Your task to perform on an android device: Open Chrome and go to settings Image 0: 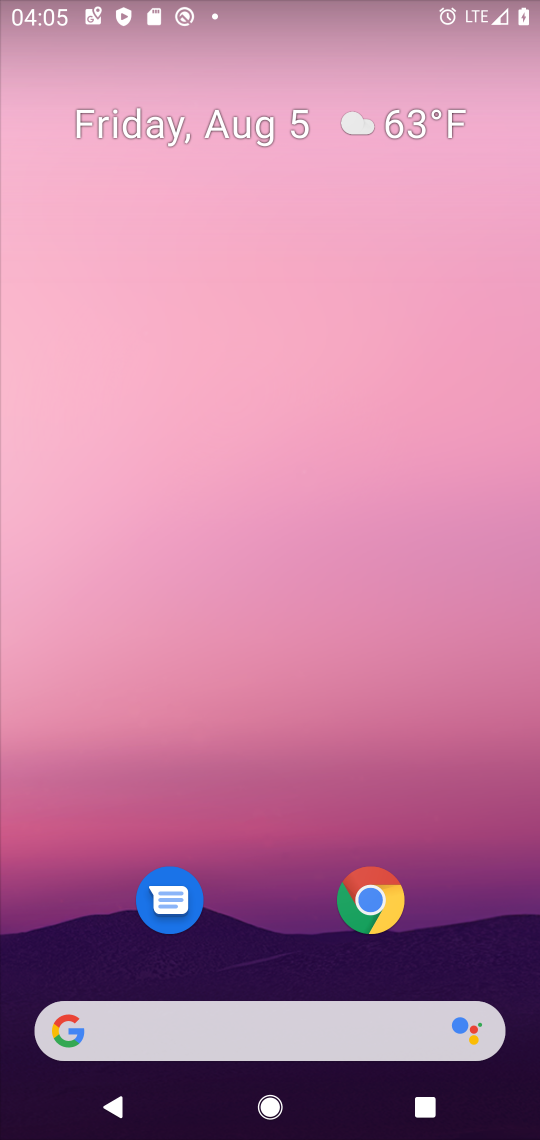
Step 0: click (373, 900)
Your task to perform on an android device: Open Chrome and go to settings Image 1: 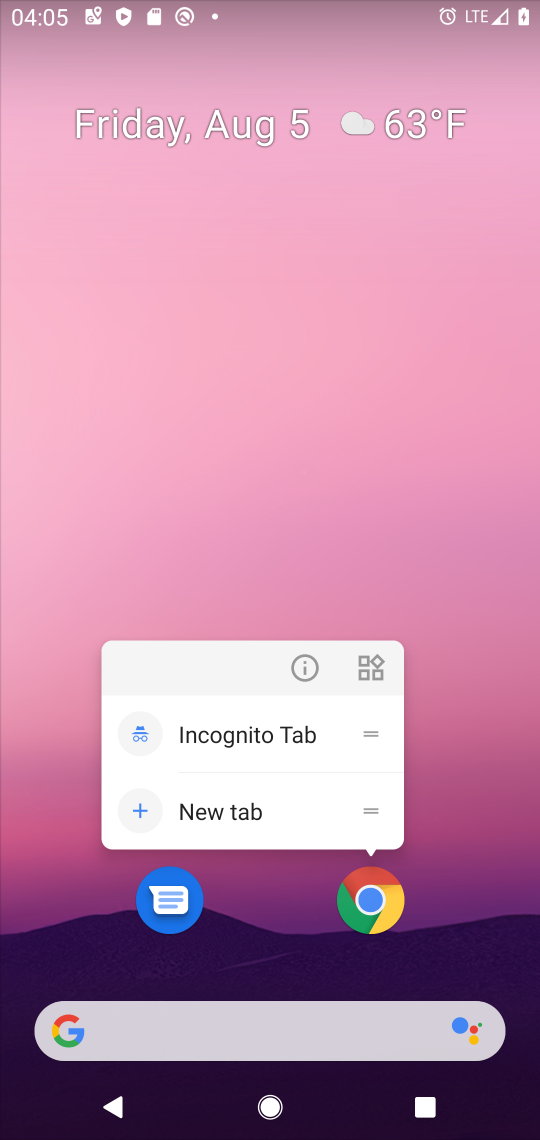
Step 1: click (383, 909)
Your task to perform on an android device: Open Chrome and go to settings Image 2: 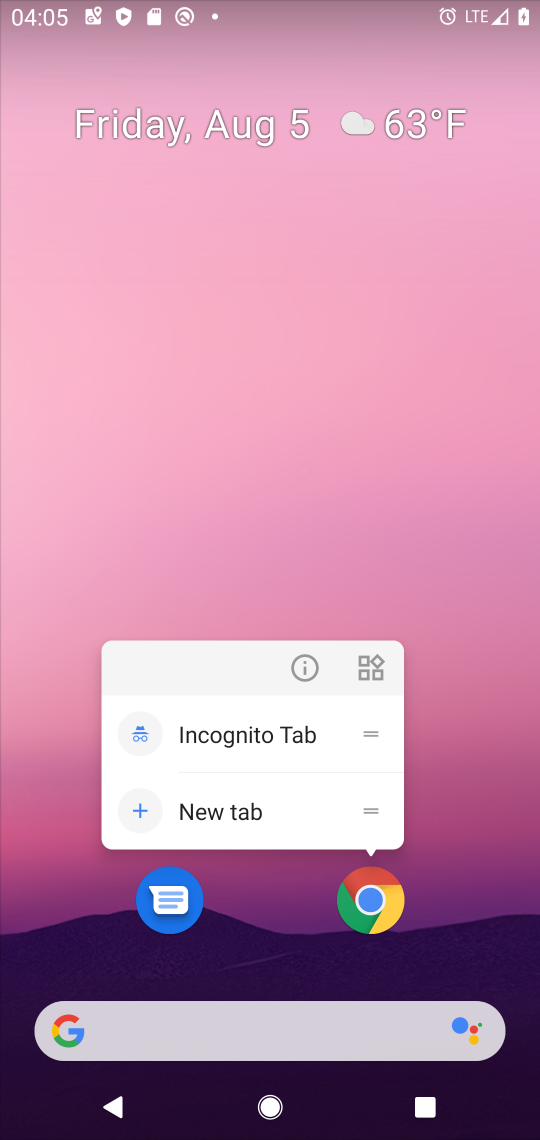
Step 2: click (376, 906)
Your task to perform on an android device: Open Chrome and go to settings Image 3: 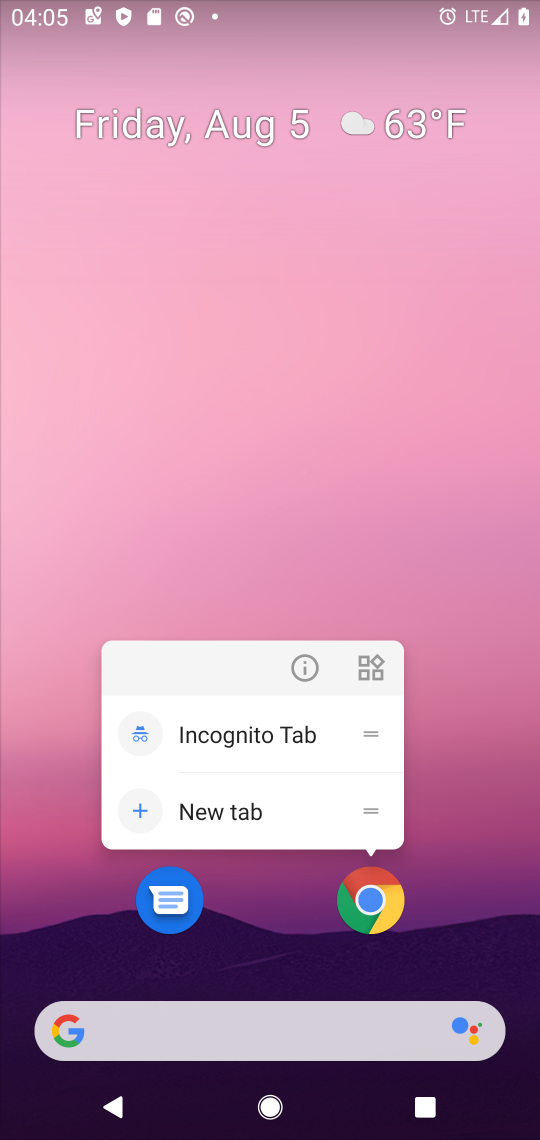
Step 3: click (376, 906)
Your task to perform on an android device: Open Chrome and go to settings Image 4: 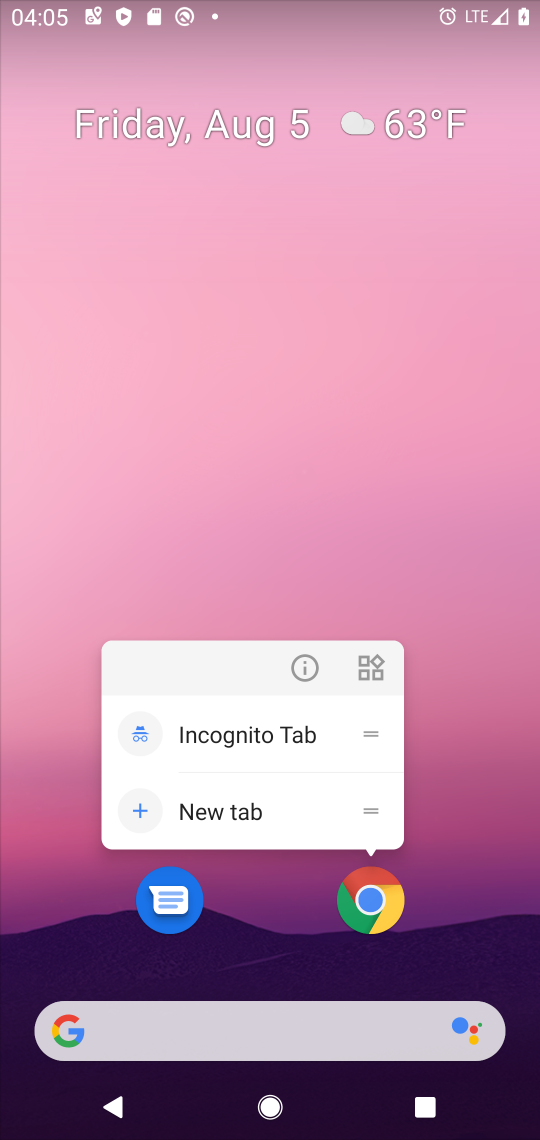
Step 4: click (389, 890)
Your task to perform on an android device: Open Chrome and go to settings Image 5: 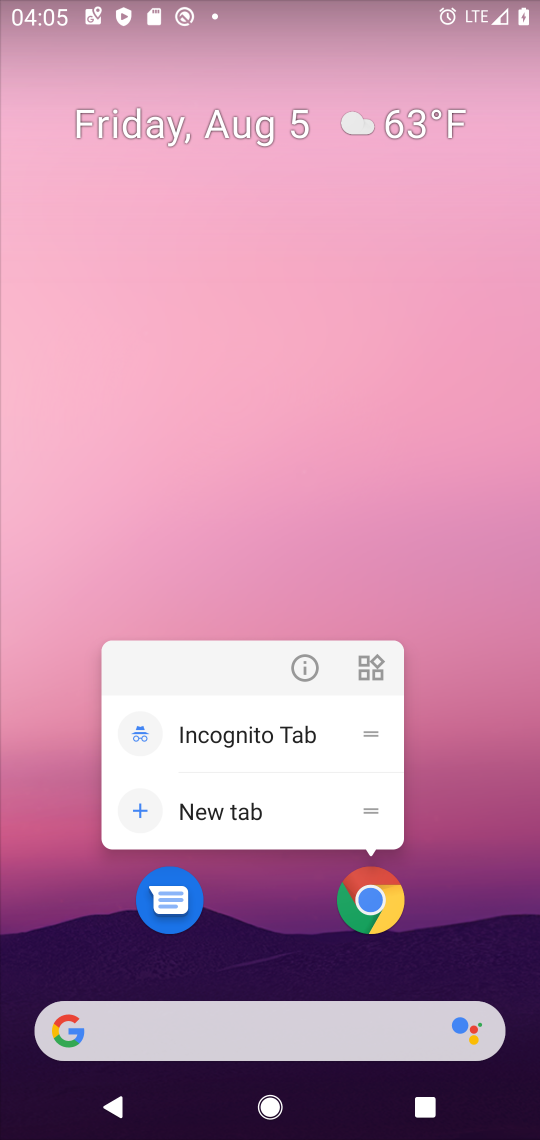
Step 5: click (365, 893)
Your task to perform on an android device: Open Chrome and go to settings Image 6: 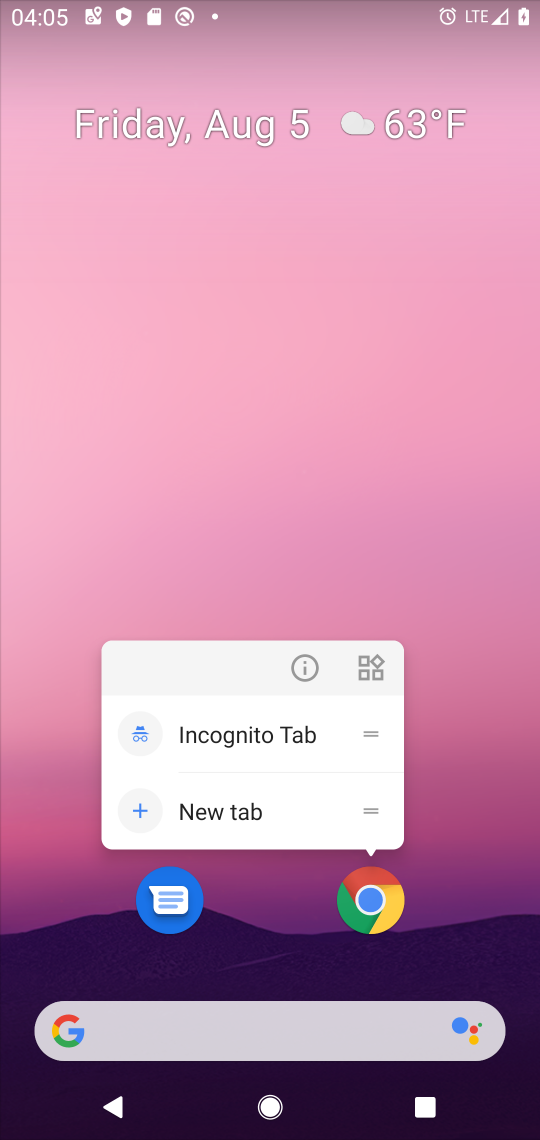
Step 6: click (375, 900)
Your task to perform on an android device: Open Chrome and go to settings Image 7: 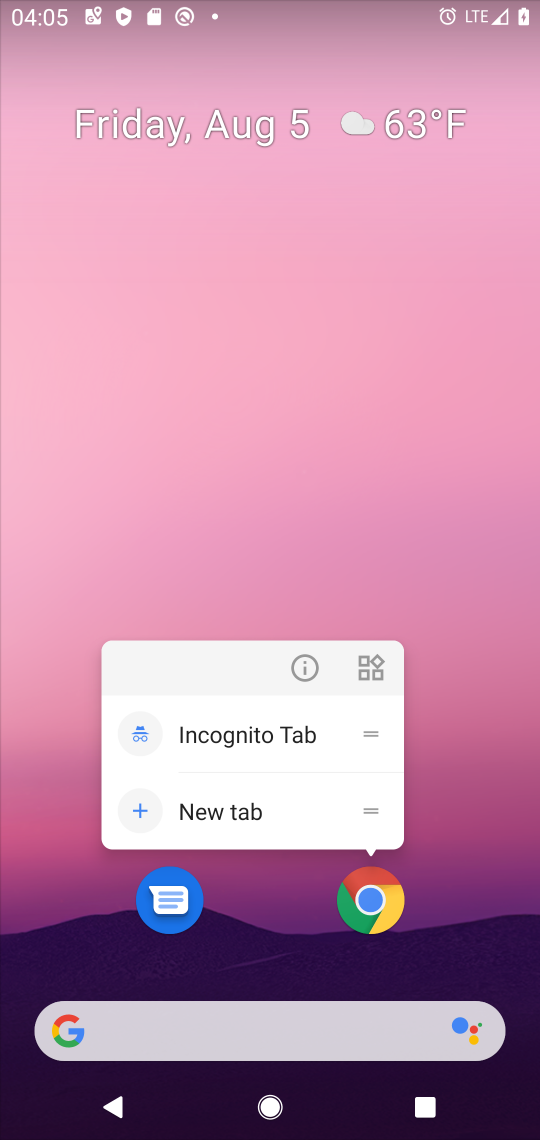
Step 7: click (366, 896)
Your task to perform on an android device: Open Chrome and go to settings Image 8: 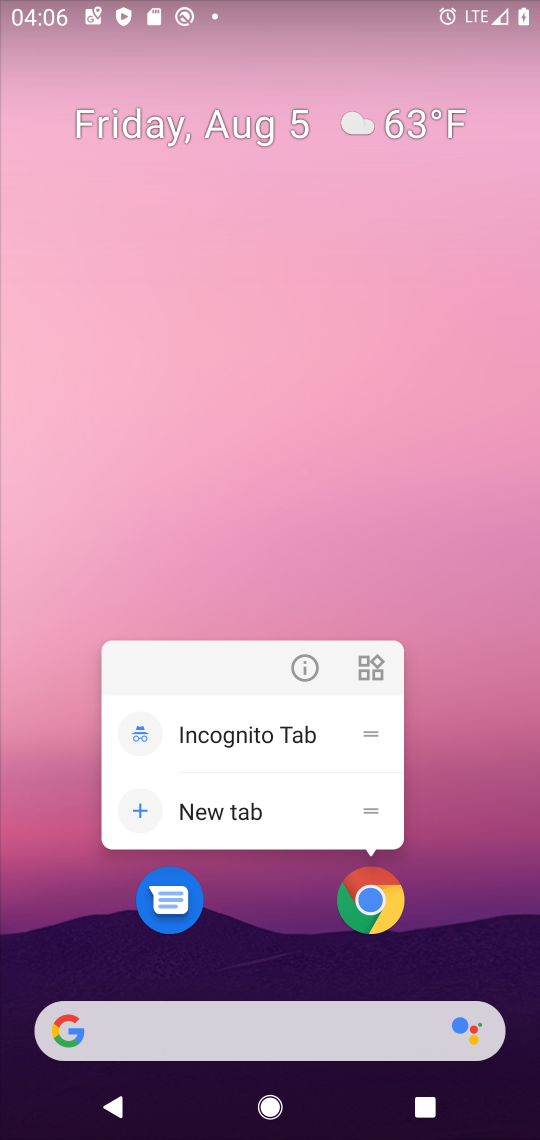
Step 8: click (380, 904)
Your task to perform on an android device: Open Chrome and go to settings Image 9: 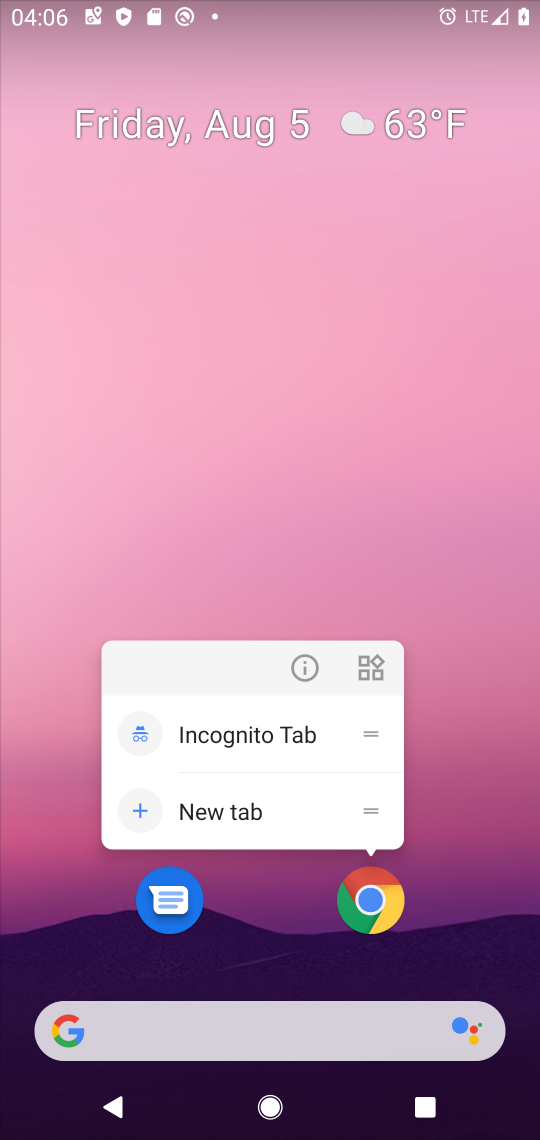
Step 9: click (365, 903)
Your task to perform on an android device: Open Chrome and go to settings Image 10: 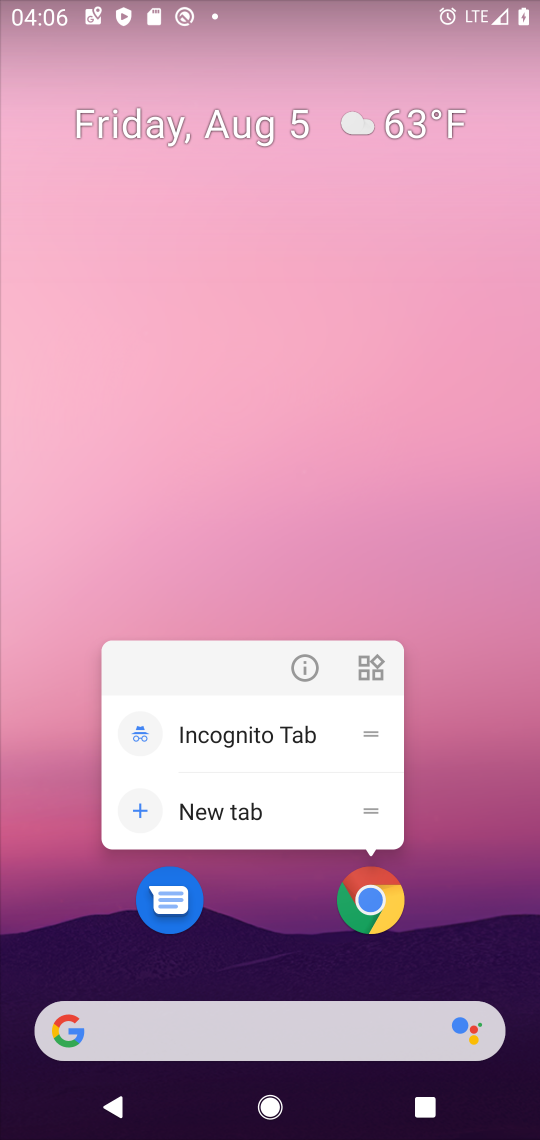
Step 10: click (361, 903)
Your task to perform on an android device: Open Chrome and go to settings Image 11: 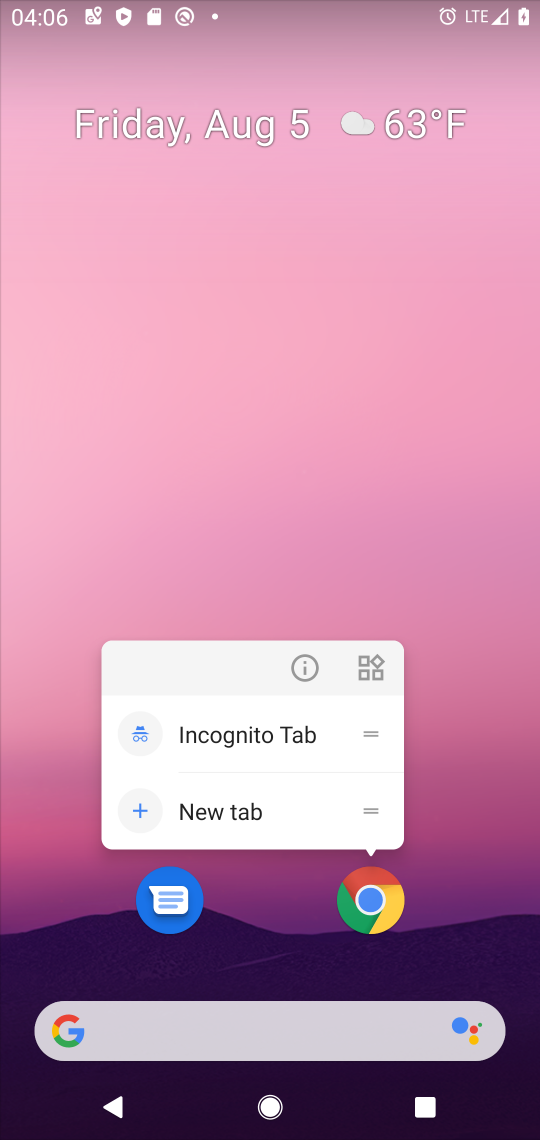
Step 11: click (363, 910)
Your task to perform on an android device: Open Chrome and go to settings Image 12: 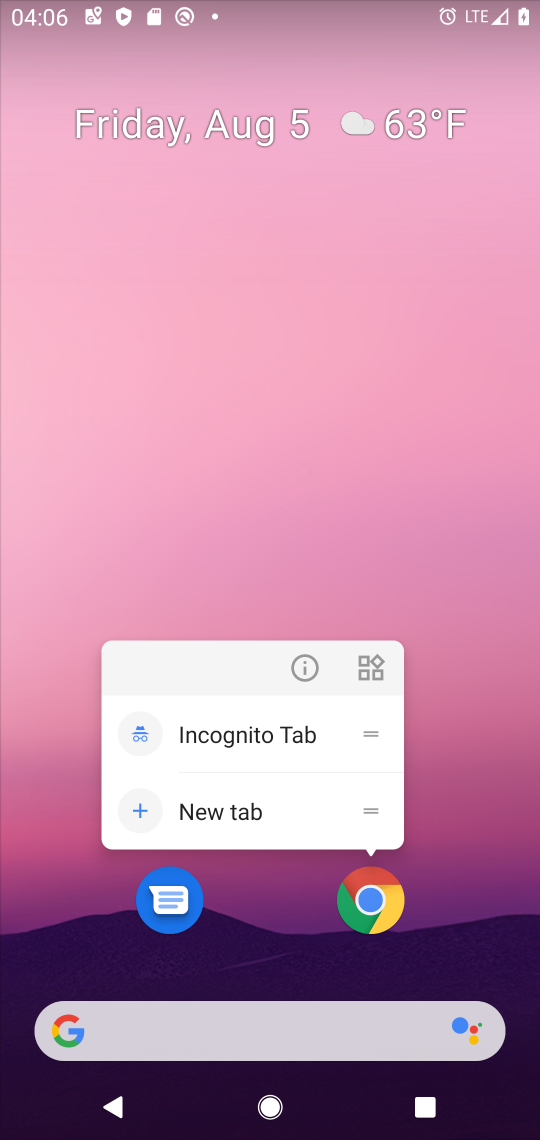
Step 12: click (391, 900)
Your task to perform on an android device: Open Chrome and go to settings Image 13: 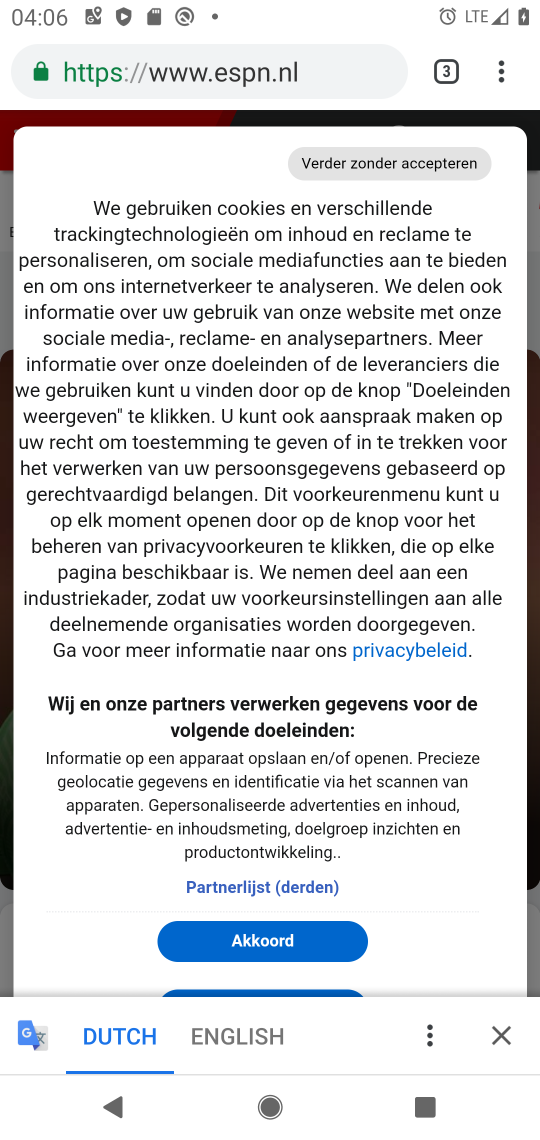
Step 13: task complete